Your task to perform on an android device: Open the stopwatch Image 0: 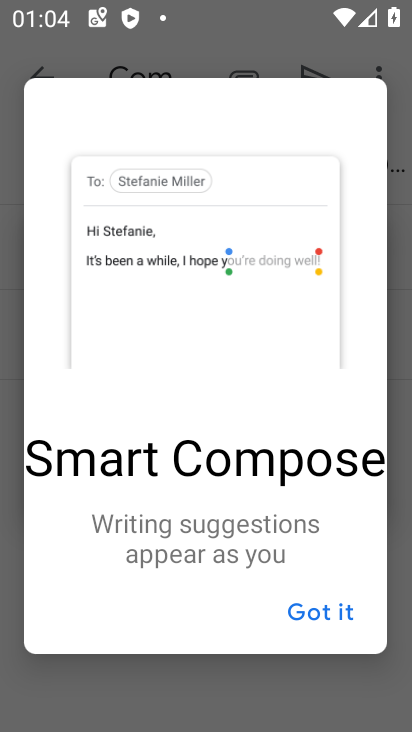
Step 0: press home button
Your task to perform on an android device: Open the stopwatch Image 1: 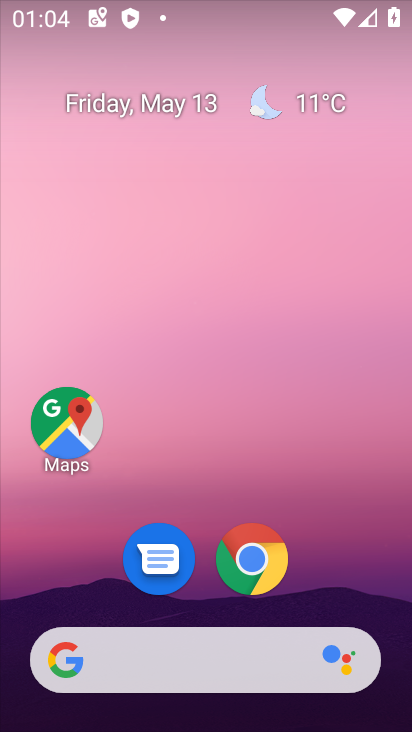
Step 1: drag from (377, 528) to (313, 62)
Your task to perform on an android device: Open the stopwatch Image 2: 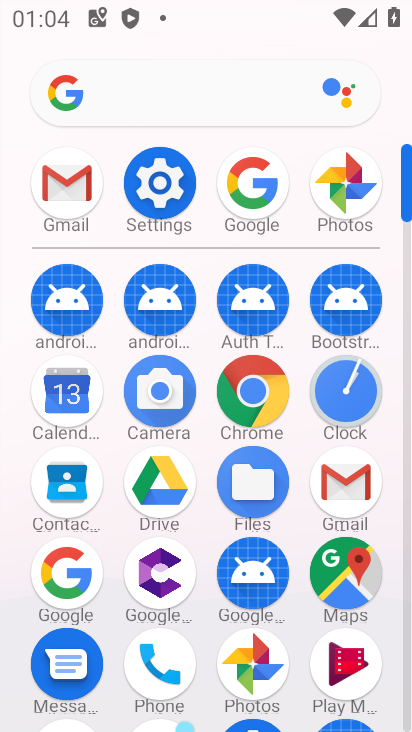
Step 2: click (343, 387)
Your task to perform on an android device: Open the stopwatch Image 3: 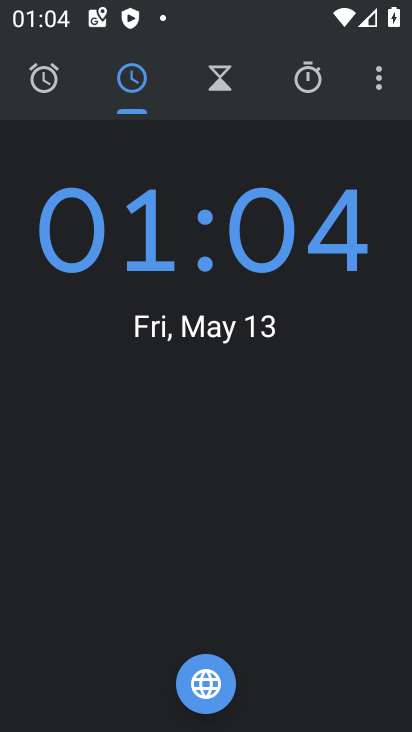
Step 3: click (304, 86)
Your task to perform on an android device: Open the stopwatch Image 4: 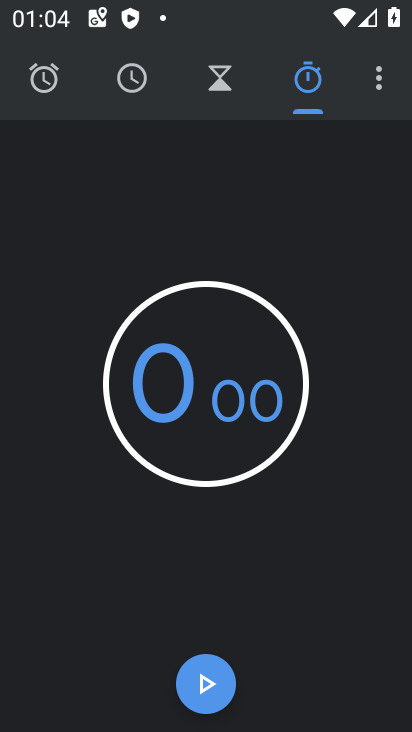
Step 4: click (202, 691)
Your task to perform on an android device: Open the stopwatch Image 5: 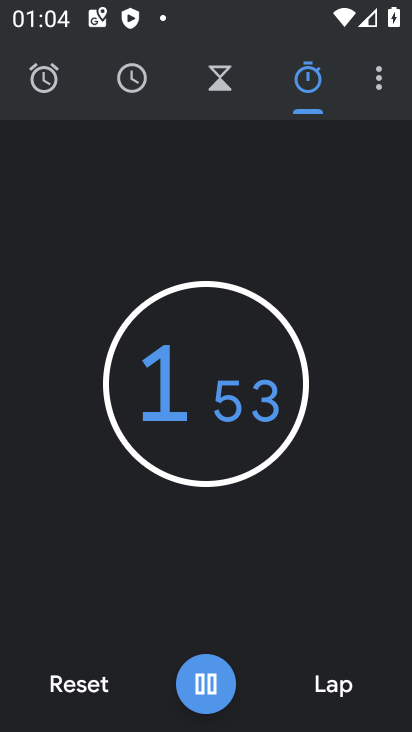
Step 5: task complete